Your task to perform on an android device: turn smart compose on in the gmail app Image 0: 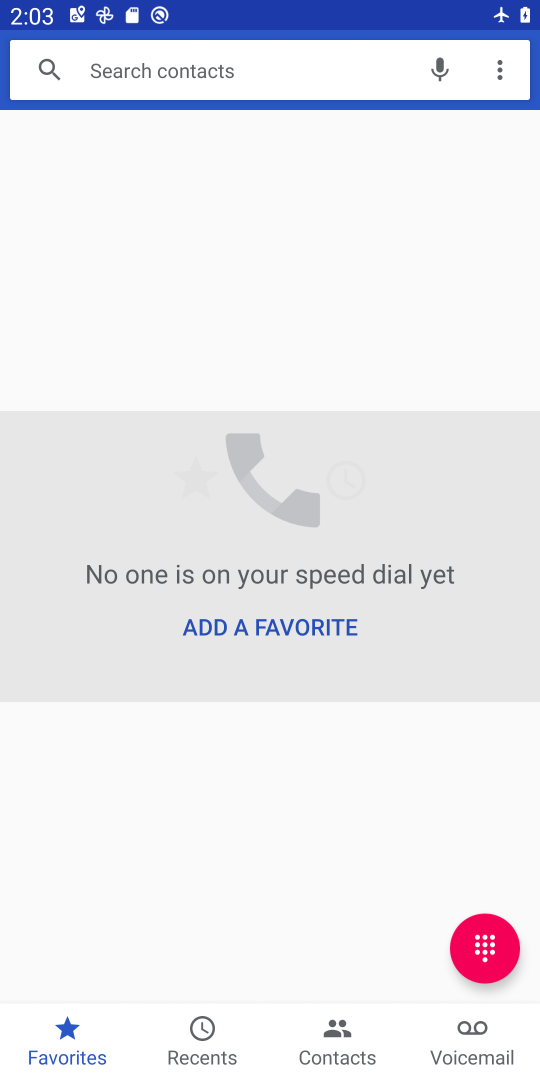
Step 0: press home button
Your task to perform on an android device: turn smart compose on in the gmail app Image 1: 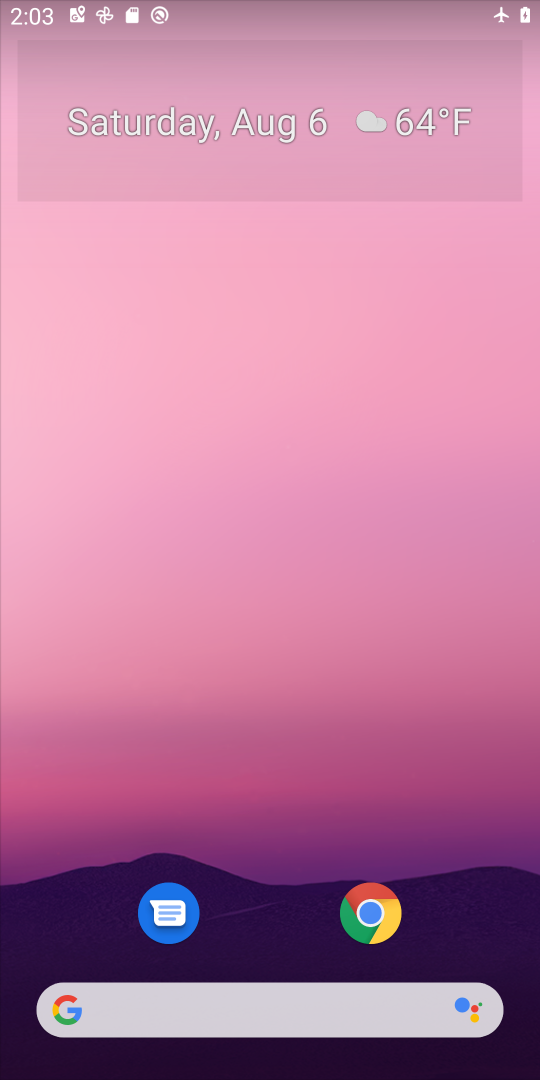
Step 1: drag from (273, 928) to (322, 304)
Your task to perform on an android device: turn smart compose on in the gmail app Image 2: 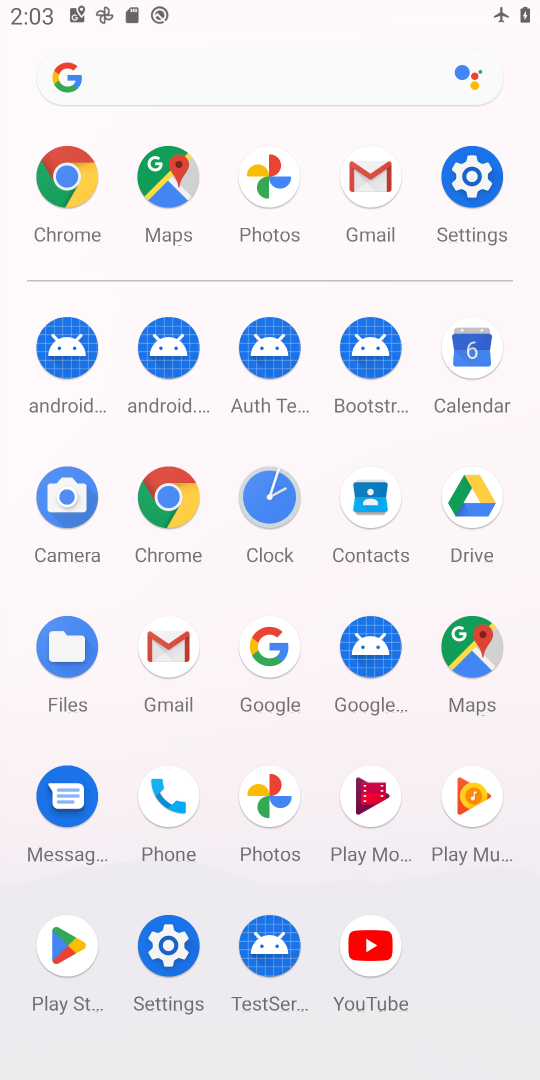
Step 2: click (152, 659)
Your task to perform on an android device: turn smart compose on in the gmail app Image 3: 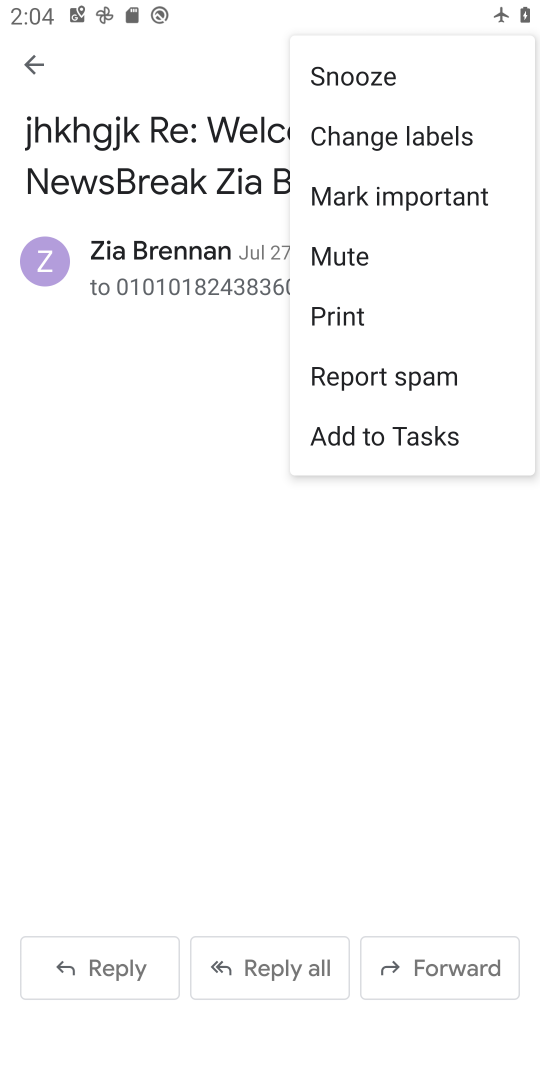
Step 3: press back button
Your task to perform on an android device: turn smart compose on in the gmail app Image 4: 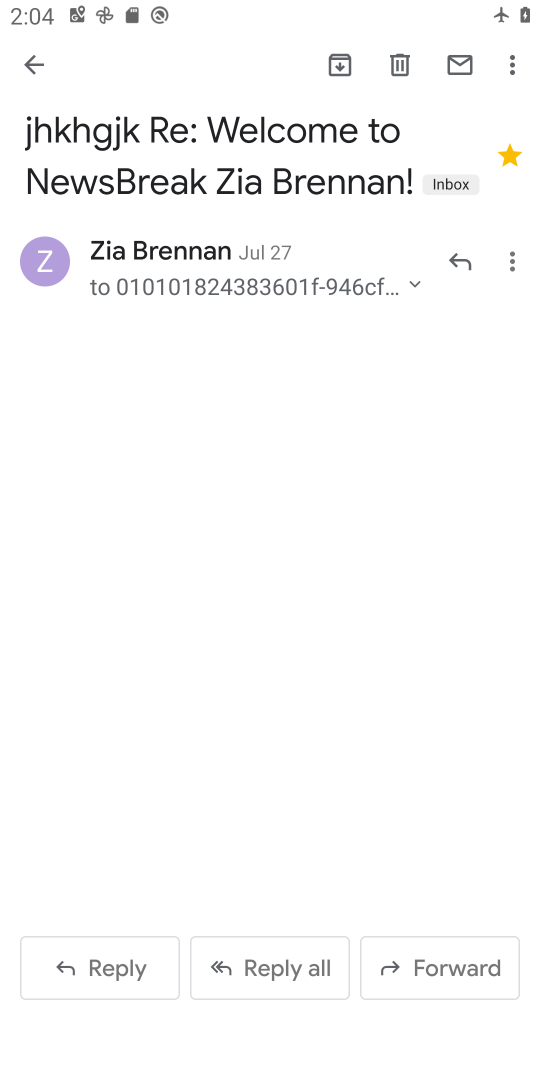
Step 4: press back button
Your task to perform on an android device: turn smart compose on in the gmail app Image 5: 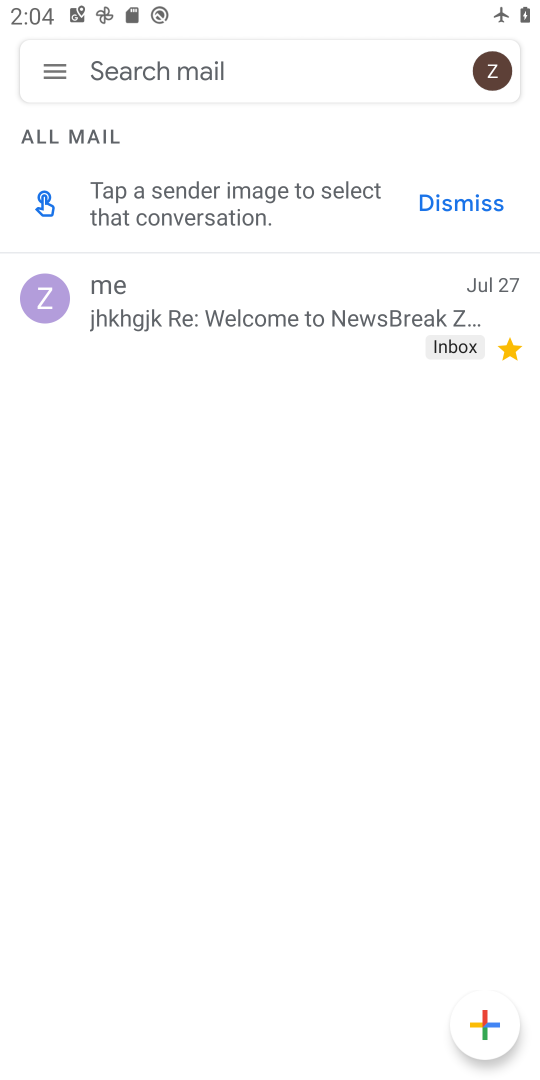
Step 5: click (52, 73)
Your task to perform on an android device: turn smart compose on in the gmail app Image 6: 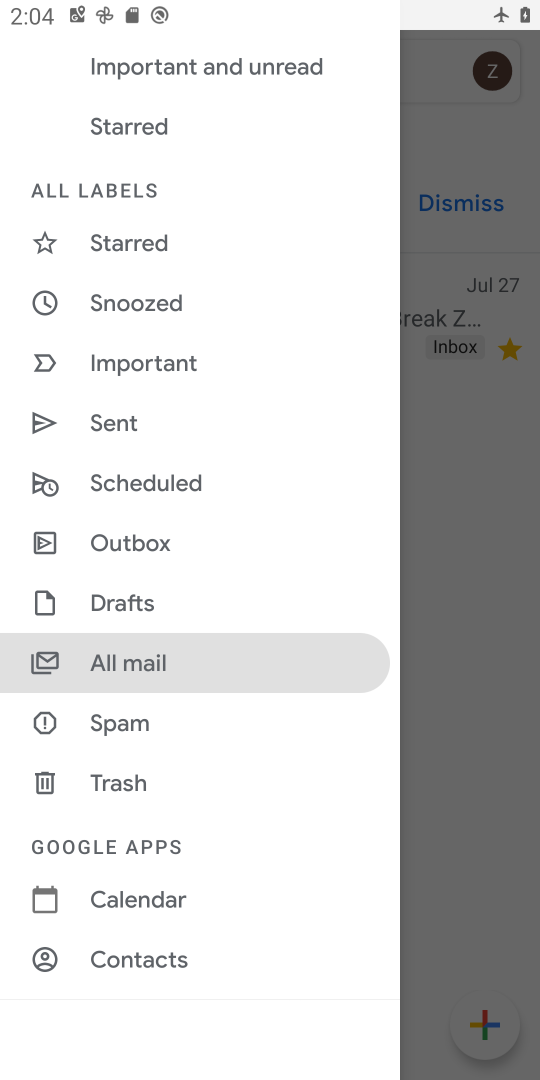
Step 6: drag from (290, 534) to (288, 405)
Your task to perform on an android device: turn smart compose on in the gmail app Image 7: 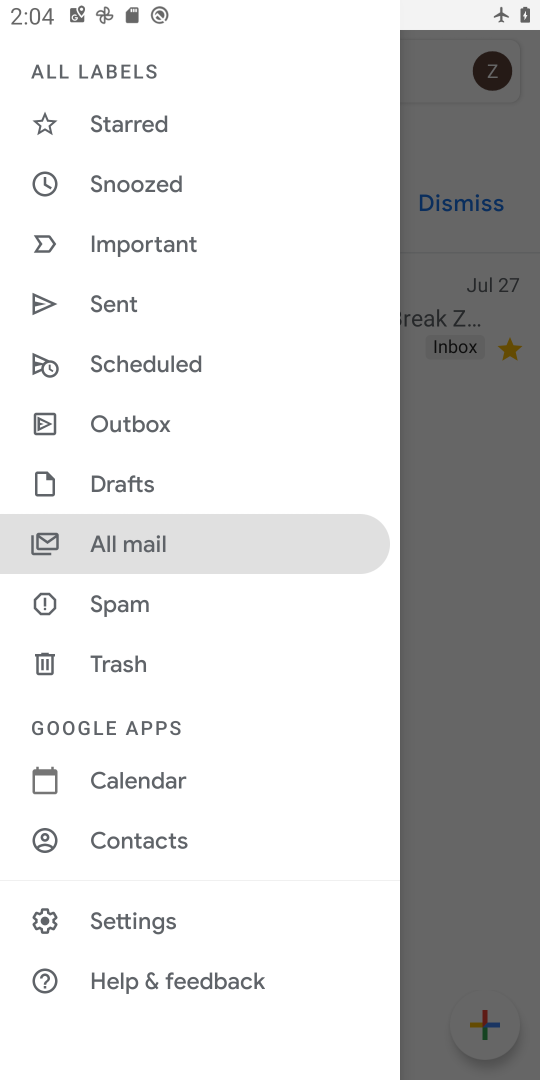
Step 7: drag from (322, 810) to (296, 547)
Your task to perform on an android device: turn smart compose on in the gmail app Image 8: 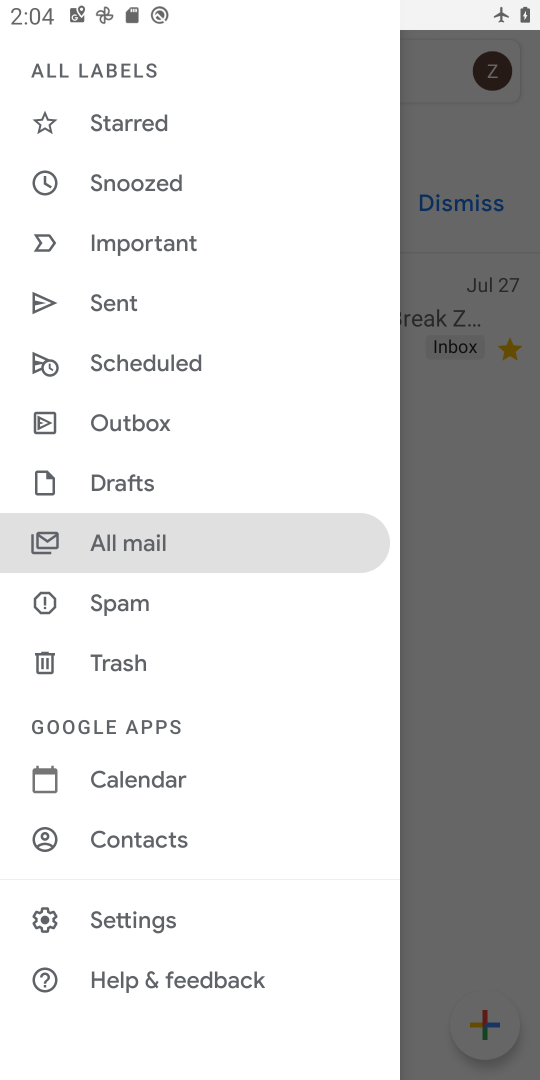
Step 8: click (231, 923)
Your task to perform on an android device: turn smart compose on in the gmail app Image 9: 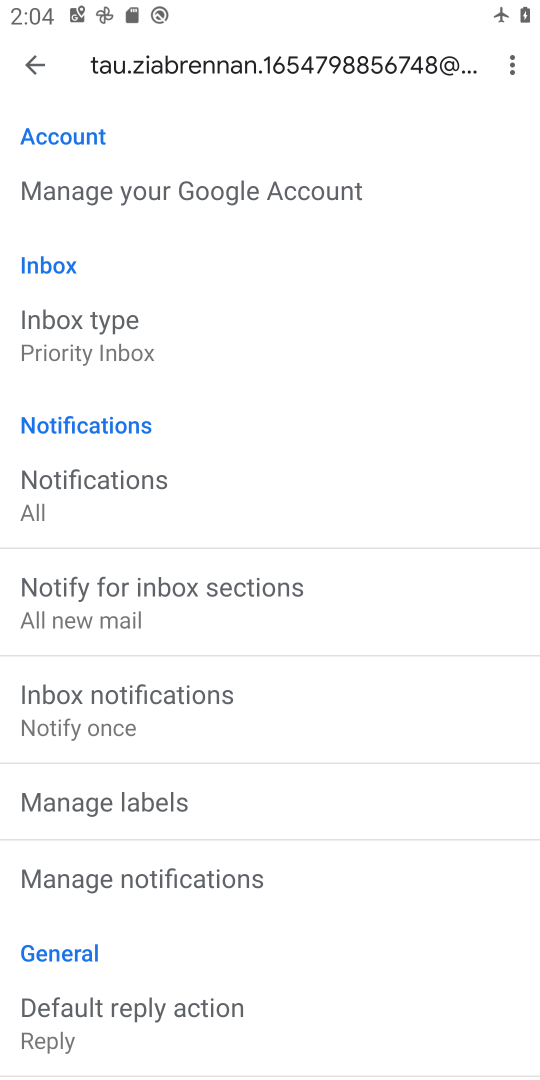
Step 9: task complete